Your task to perform on an android device: Go to Amazon Image 0: 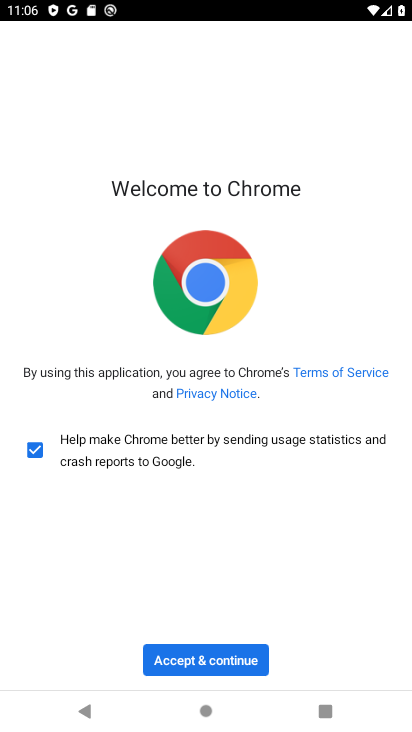
Step 0: click (212, 657)
Your task to perform on an android device: Go to Amazon Image 1: 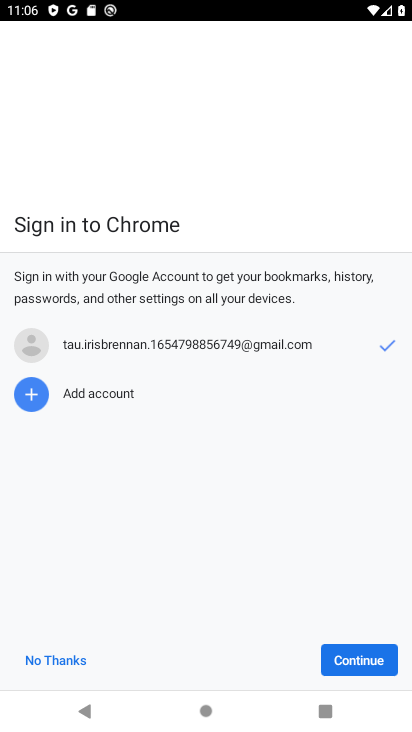
Step 1: click (374, 660)
Your task to perform on an android device: Go to Amazon Image 2: 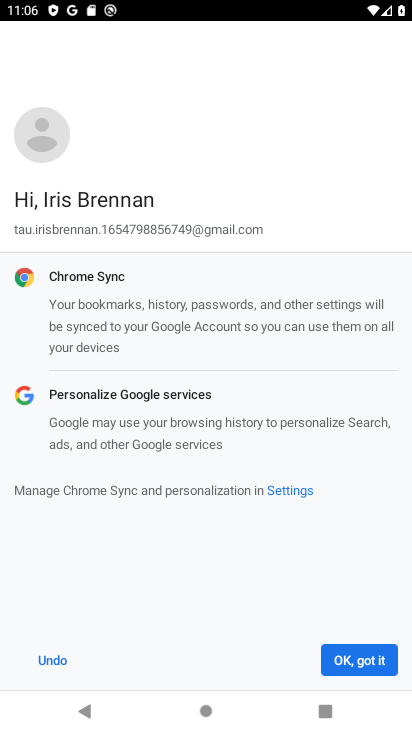
Step 2: click (361, 657)
Your task to perform on an android device: Go to Amazon Image 3: 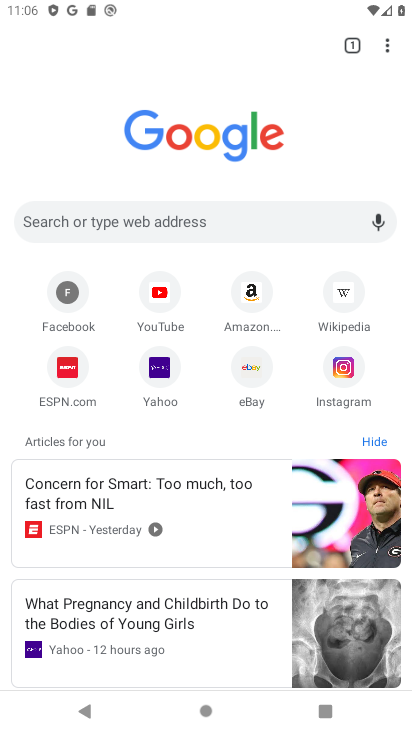
Step 3: click (259, 304)
Your task to perform on an android device: Go to Amazon Image 4: 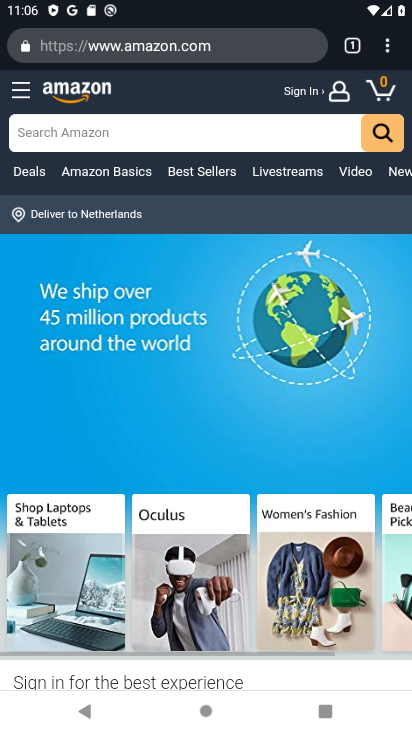
Step 4: task complete